Your task to perform on an android device: Open calendar and show me the second week of next month Image 0: 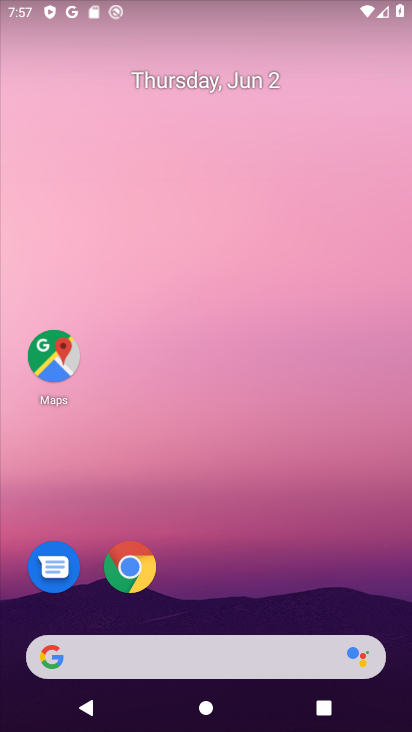
Step 0: drag from (337, 564) to (209, 1)
Your task to perform on an android device: Open calendar and show me the second week of next month Image 1: 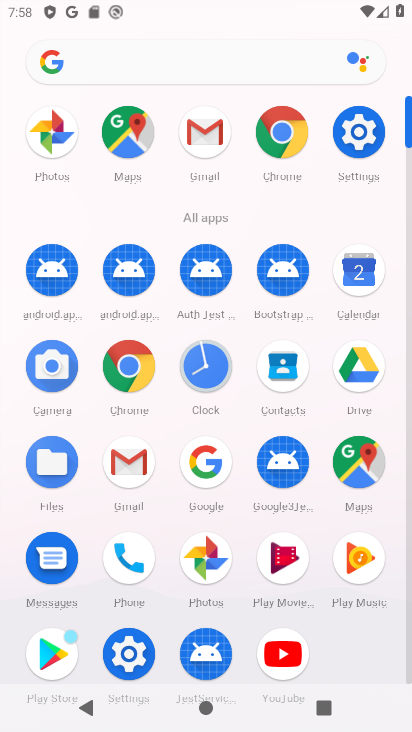
Step 1: click (360, 268)
Your task to perform on an android device: Open calendar and show me the second week of next month Image 2: 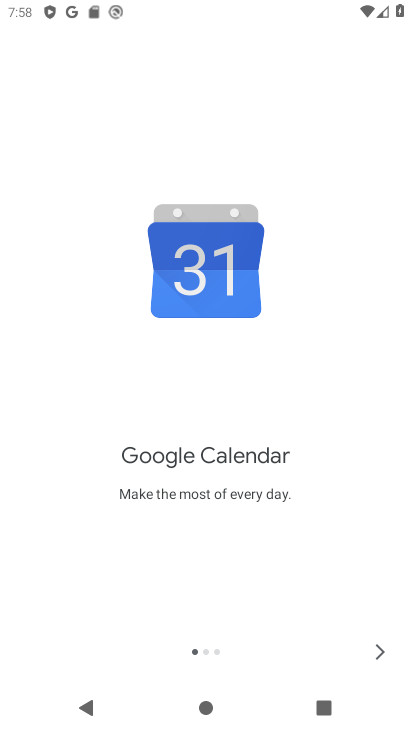
Step 2: click (380, 650)
Your task to perform on an android device: Open calendar and show me the second week of next month Image 3: 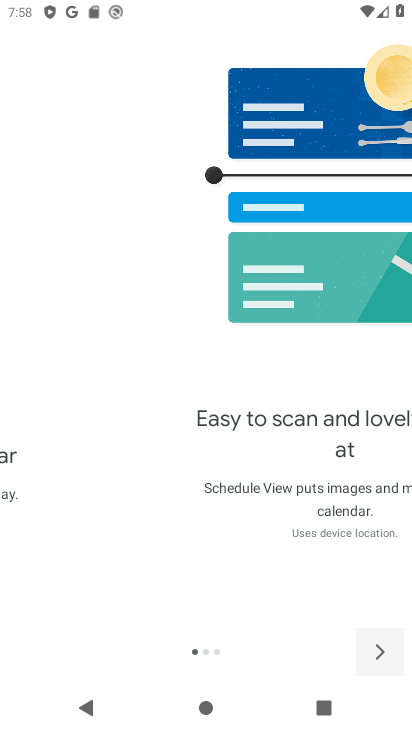
Step 3: click (380, 649)
Your task to perform on an android device: Open calendar and show me the second week of next month Image 4: 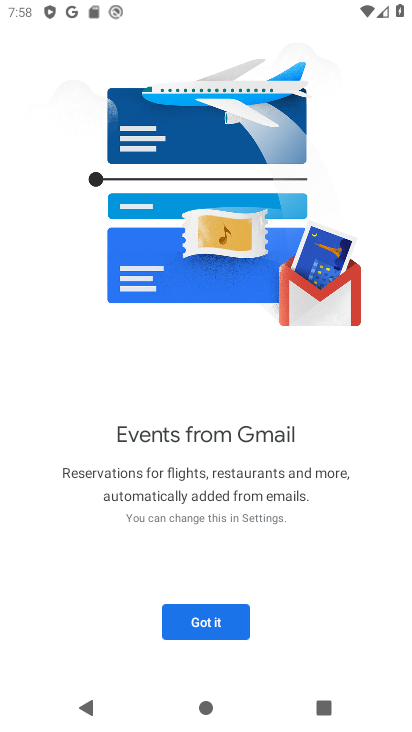
Step 4: click (202, 609)
Your task to perform on an android device: Open calendar and show me the second week of next month Image 5: 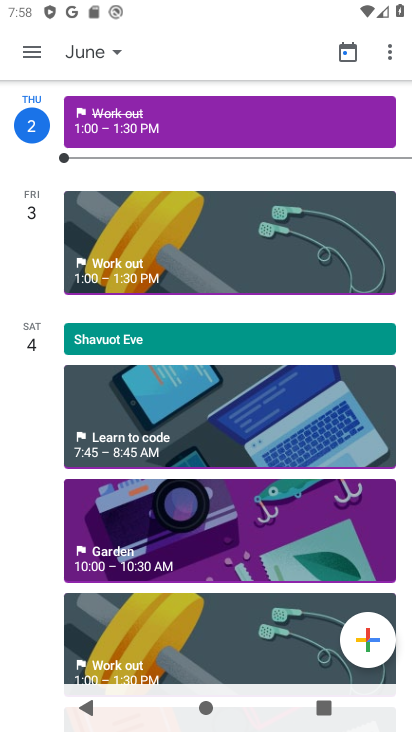
Step 5: click (54, 51)
Your task to perform on an android device: Open calendar and show me the second week of next month Image 6: 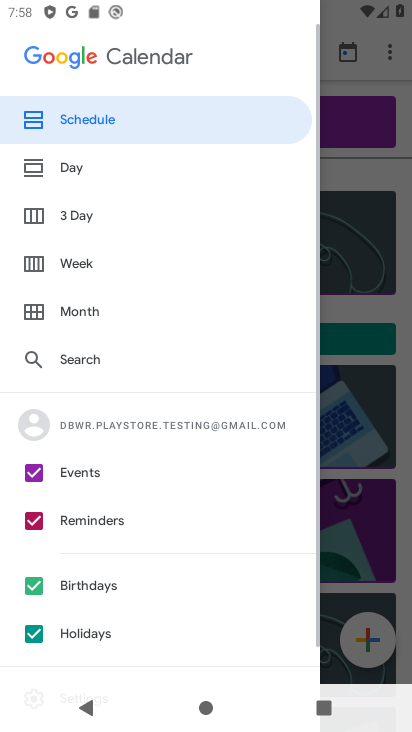
Step 6: drag from (105, 589) to (142, 124)
Your task to perform on an android device: Open calendar and show me the second week of next month Image 7: 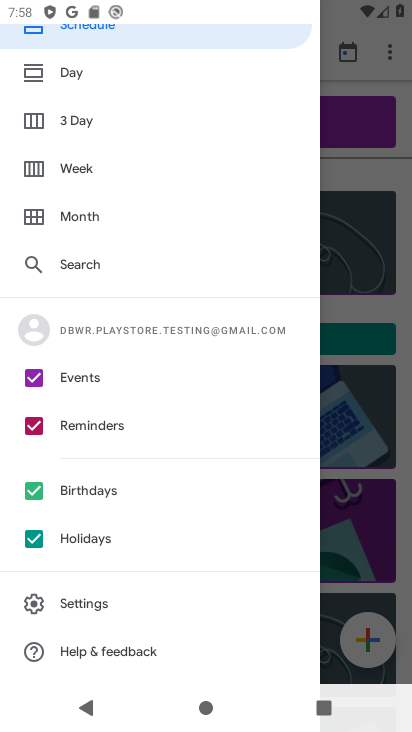
Step 7: click (348, 197)
Your task to perform on an android device: Open calendar and show me the second week of next month Image 8: 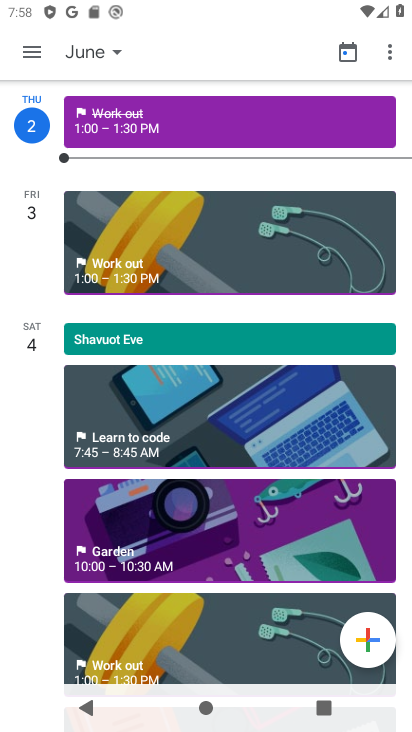
Step 8: click (115, 53)
Your task to perform on an android device: Open calendar and show me the second week of next month Image 9: 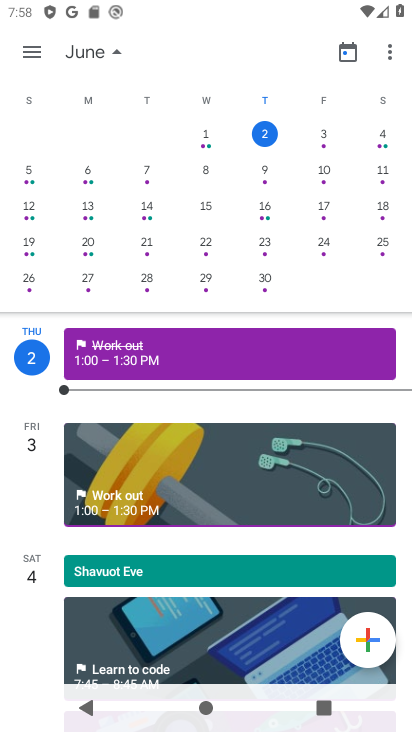
Step 9: drag from (362, 215) to (97, 167)
Your task to perform on an android device: Open calendar and show me the second week of next month Image 10: 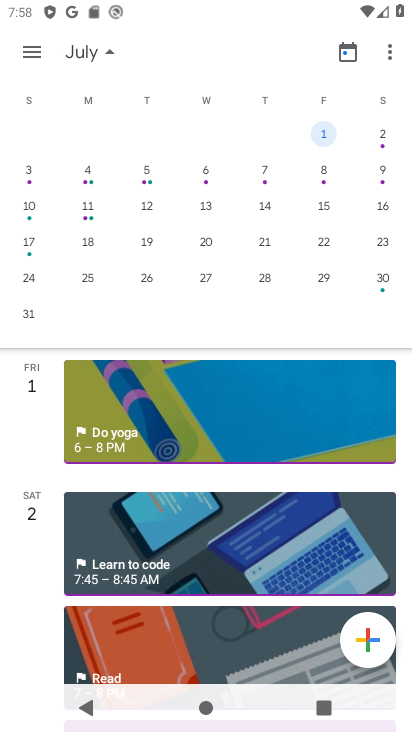
Step 10: click (37, 211)
Your task to perform on an android device: Open calendar and show me the second week of next month Image 11: 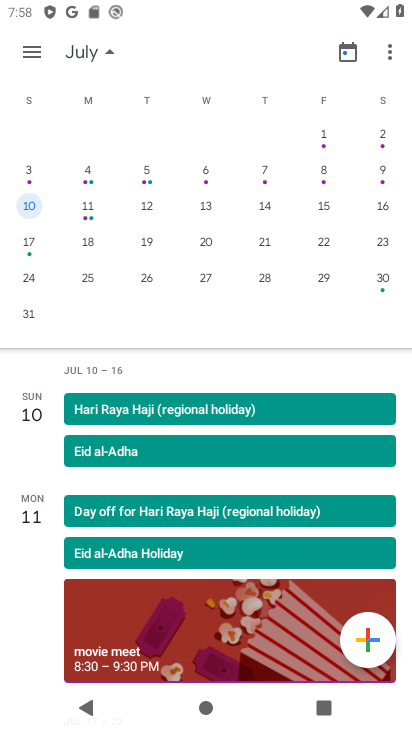
Step 11: click (40, 51)
Your task to perform on an android device: Open calendar and show me the second week of next month Image 12: 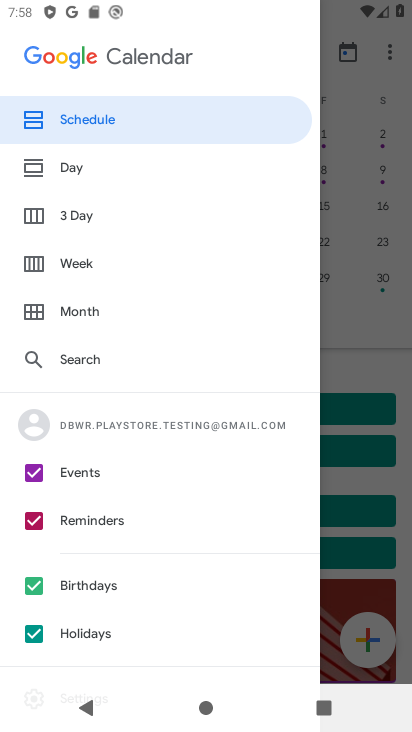
Step 12: click (77, 269)
Your task to perform on an android device: Open calendar and show me the second week of next month Image 13: 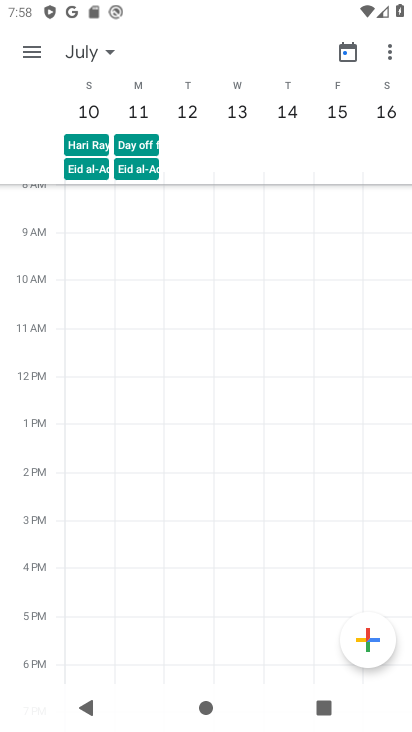
Step 13: task complete